Your task to perform on an android device: Is it going to rain today? Image 0: 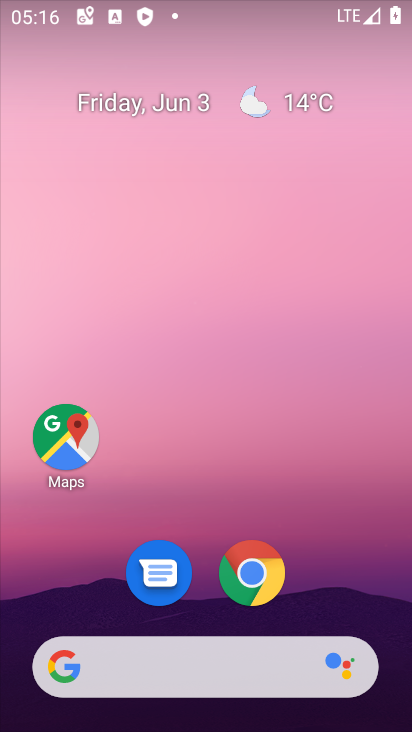
Step 0: drag from (347, 568) to (240, 122)
Your task to perform on an android device: Is it going to rain today? Image 1: 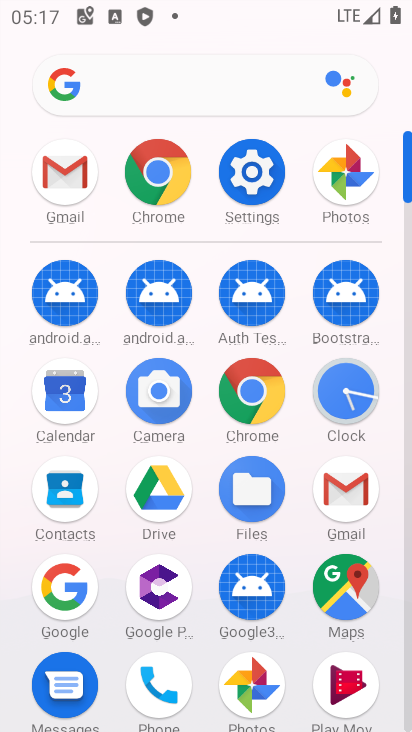
Step 1: click (159, 178)
Your task to perform on an android device: Is it going to rain today? Image 2: 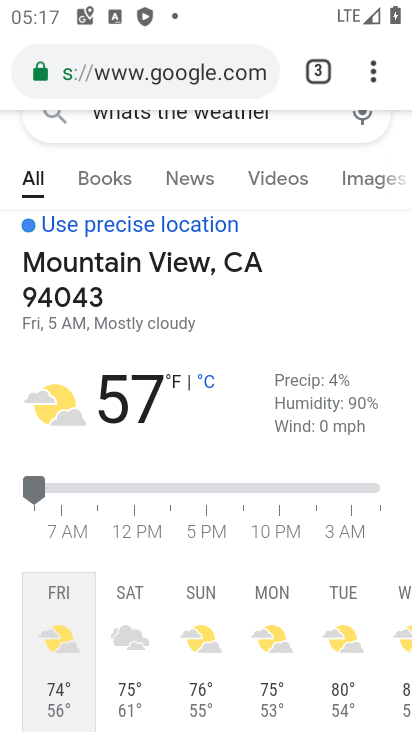
Step 2: click (245, 69)
Your task to perform on an android device: Is it going to rain today? Image 3: 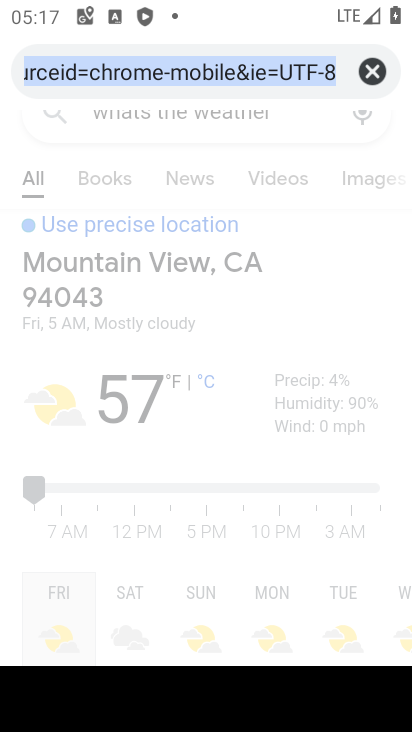
Step 3: click (377, 72)
Your task to perform on an android device: Is it going to rain today? Image 4: 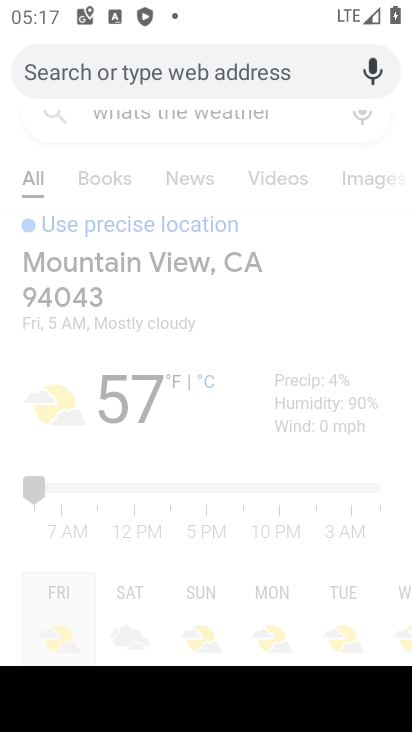
Step 4: type "is it going to rain today"
Your task to perform on an android device: Is it going to rain today? Image 5: 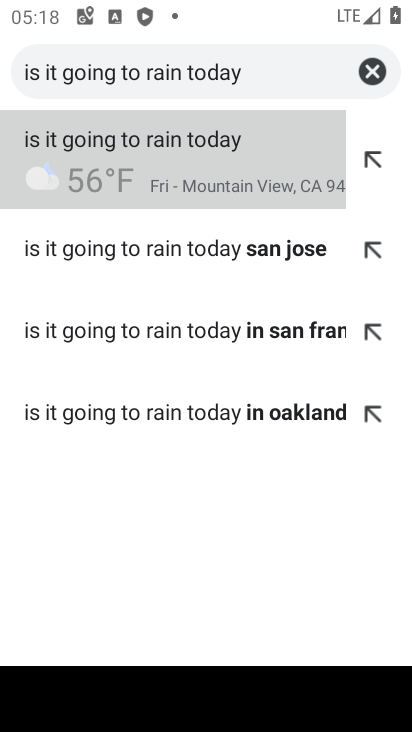
Step 5: click (194, 149)
Your task to perform on an android device: Is it going to rain today? Image 6: 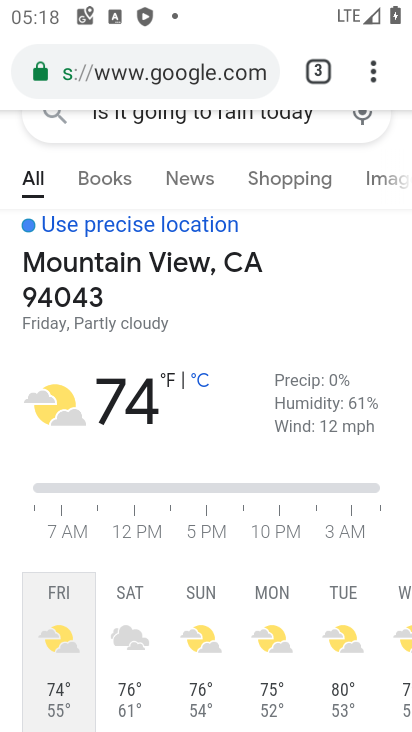
Step 6: task complete